Your task to perform on an android device: Open the map Image 0: 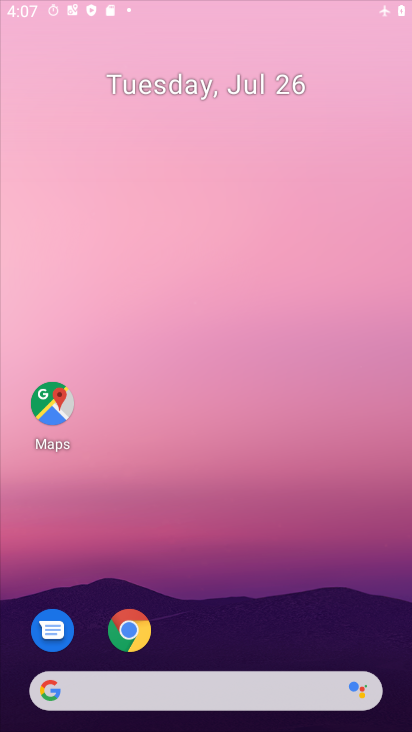
Step 0: drag from (267, 643) to (181, 102)
Your task to perform on an android device: Open the map Image 1: 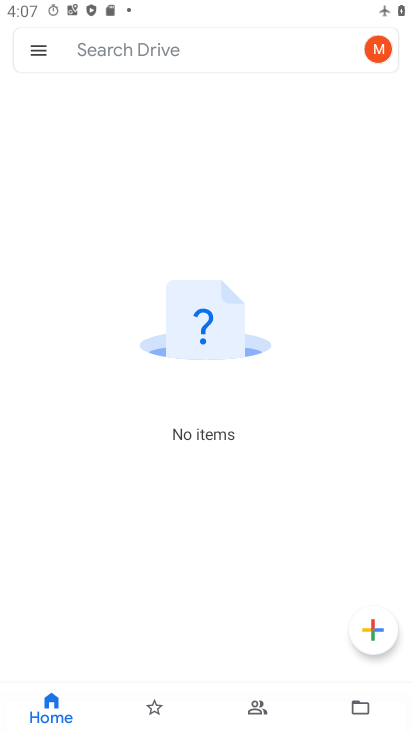
Step 1: press home button
Your task to perform on an android device: Open the map Image 2: 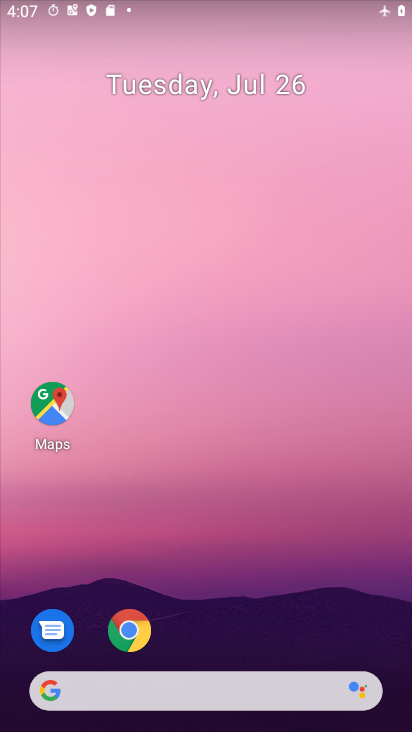
Step 2: click (64, 411)
Your task to perform on an android device: Open the map Image 3: 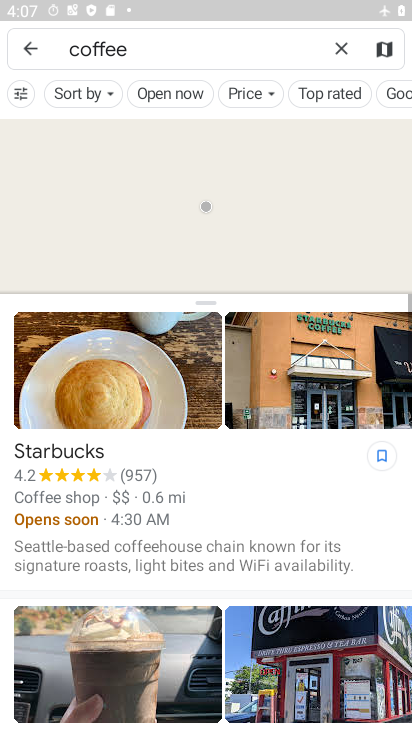
Step 3: task complete